Your task to perform on an android device: Open Maps and search for coffee Image 0: 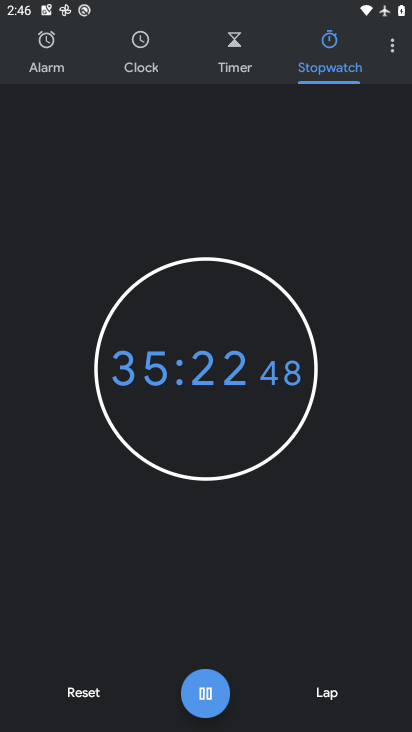
Step 0: drag from (262, 623) to (268, 192)
Your task to perform on an android device: Open Maps and search for coffee Image 1: 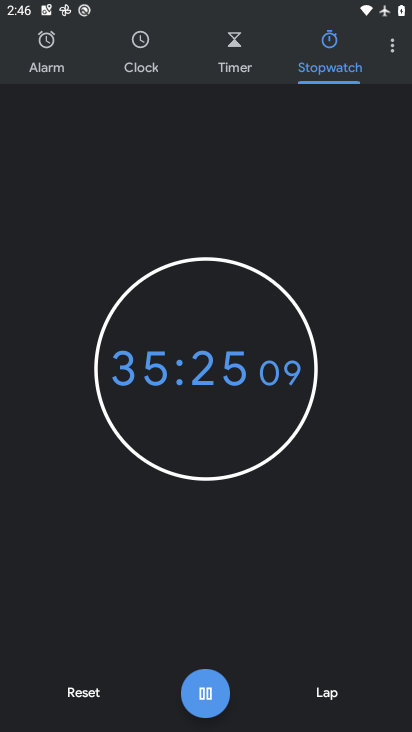
Step 1: press home button
Your task to perform on an android device: Open Maps and search for coffee Image 2: 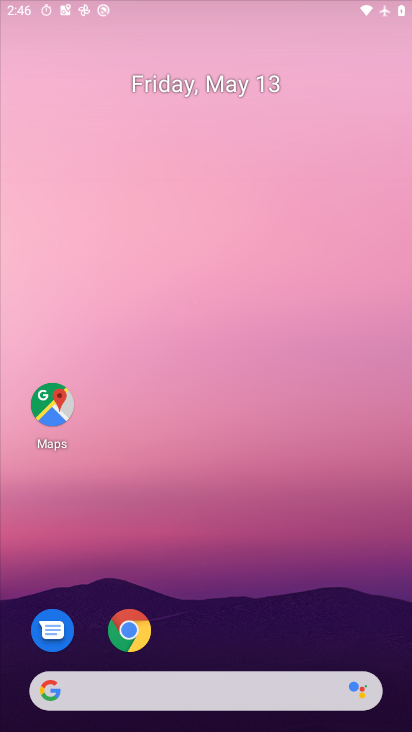
Step 2: drag from (348, 572) to (332, 217)
Your task to perform on an android device: Open Maps and search for coffee Image 3: 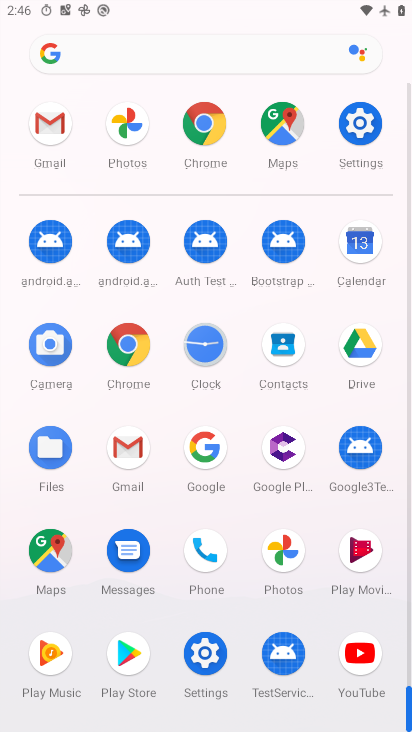
Step 3: click (44, 560)
Your task to perform on an android device: Open Maps and search for coffee Image 4: 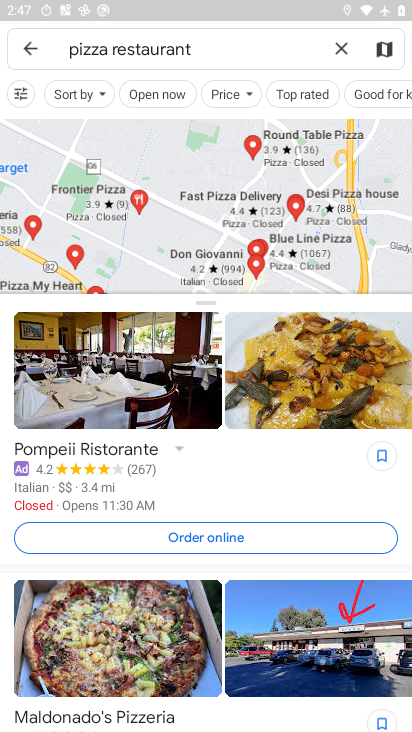
Step 4: click (329, 49)
Your task to perform on an android device: Open Maps and search for coffee Image 5: 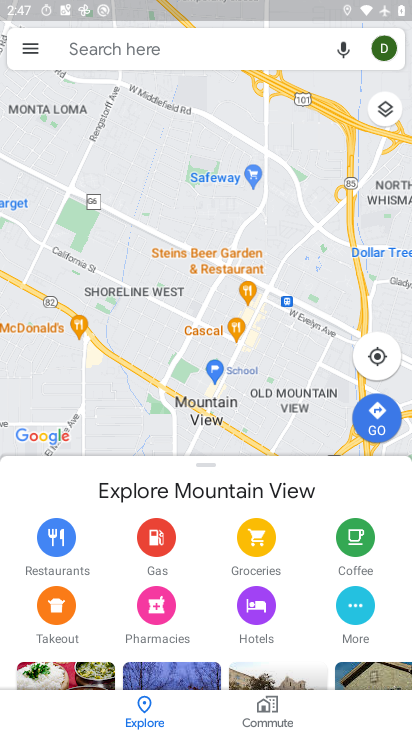
Step 5: click (201, 63)
Your task to perform on an android device: Open Maps and search for coffee Image 6: 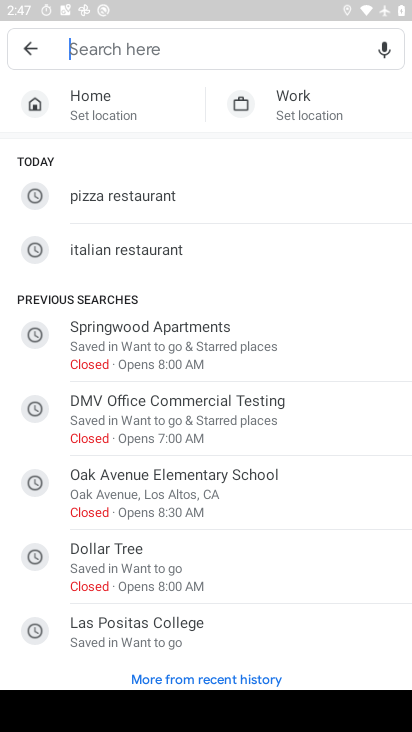
Step 6: type "coffee"
Your task to perform on an android device: Open Maps and search for coffee Image 7: 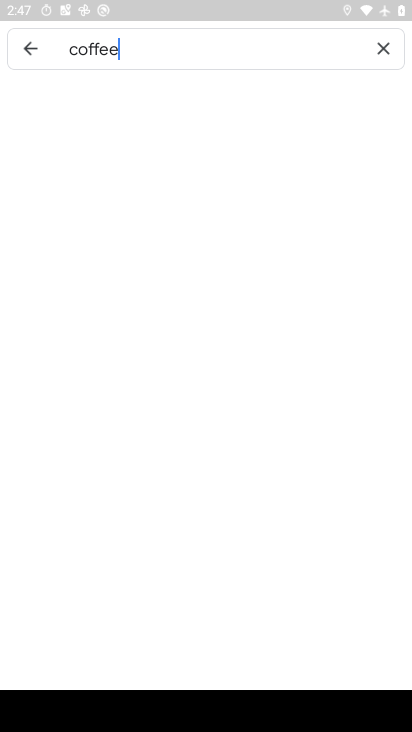
Step 7: type ""
Your task to perform on an android device: Open Maps and search for coffee Image 8: 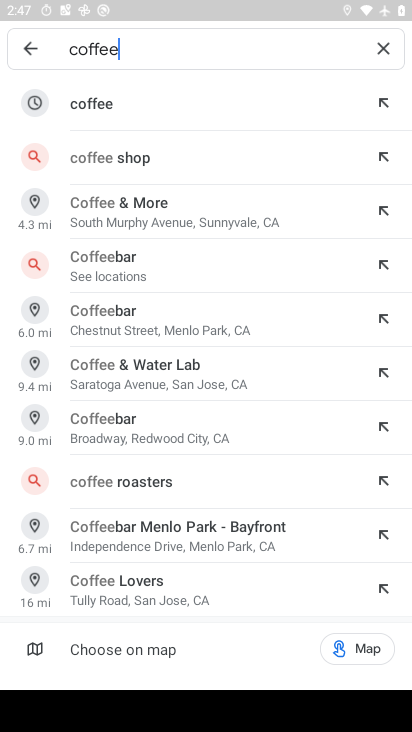
Step 8: click (196, 109)
Your task to perform on an android device: Open Maps and search for coffee Image 9: 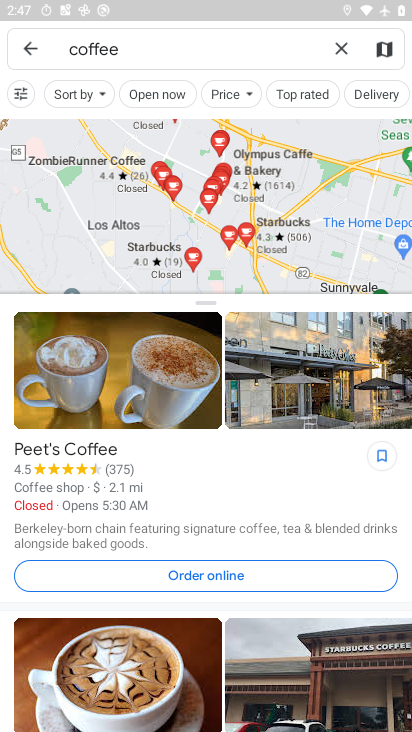
Step 9: task complete